Your task to perform on an android device: Empty the shopping cart on newegg.com. Search for "razer blade" on newegg.com, select the first entry, and add it to the cart. Image 0: 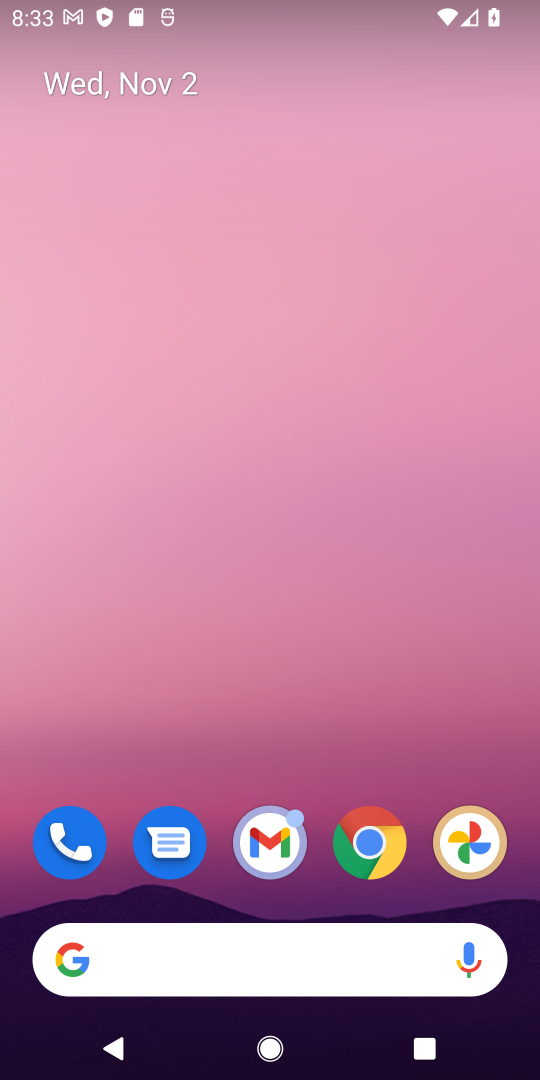
Step 0: drag from (267, 502) to (282, 131)
Your task to perform on an android device: Empty the shopping cart on newegg.com. Search for "razer blade" on newegg.com, select the first entry, and add it to the cart. Image 1: 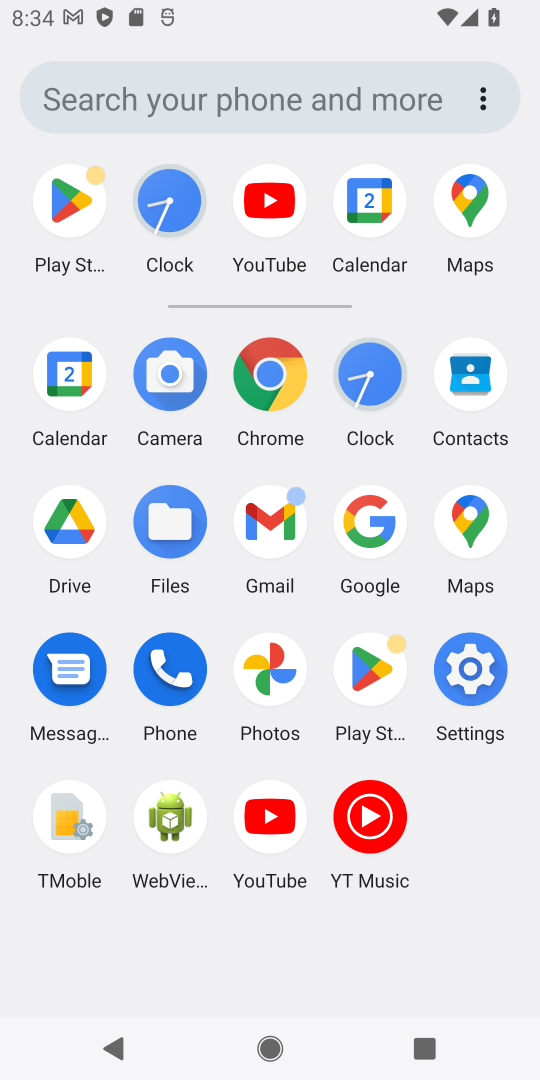
Step 1: click (364, 516)
Your task to perform on an android device: Empty the shopping cart on newegg.com. Search for "razer blade" on newegg.com, select the first entry, and add it to the cart. Image 2: 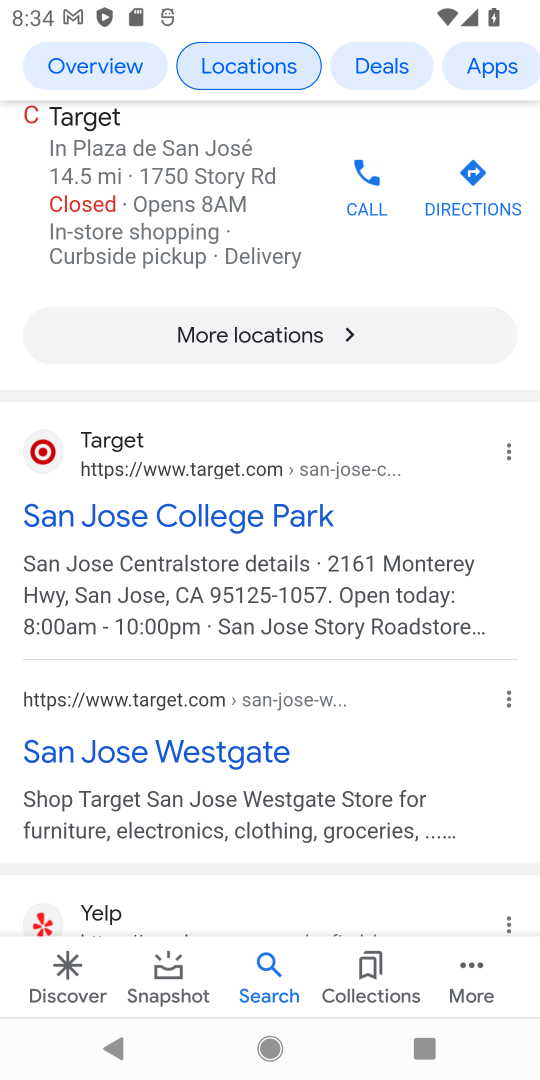
Step 2: drag from (317, 172) to (247, 832)
Your task to perform on an android device: Empty the shopping cart on newegg.com. Search for "razer blade" on newegg.com, select the first entry, and add it to the cart. Image 3: 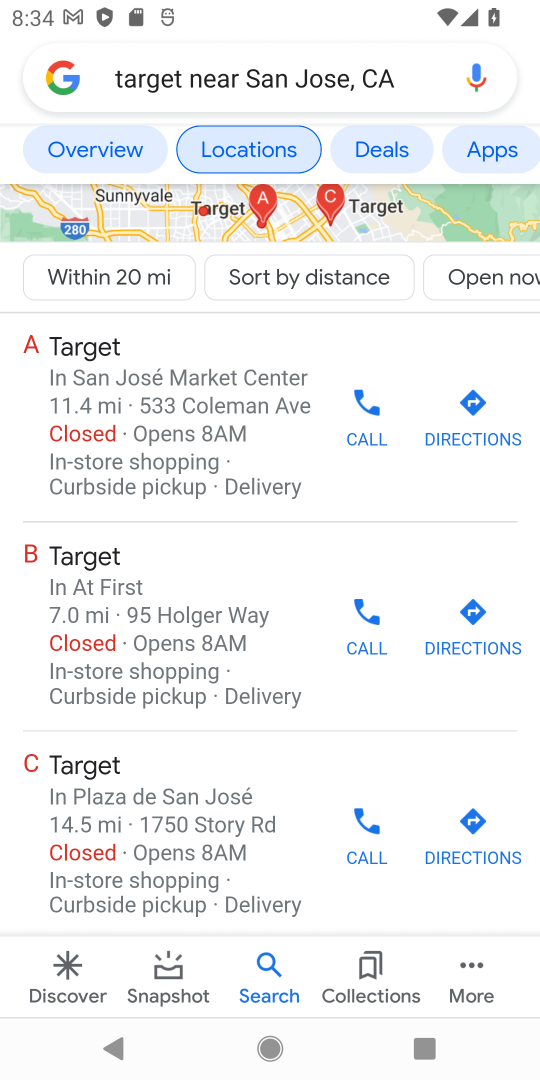
Step 3: click (227, 74)
Your task to perform on an android device: Empty the shopping cart on newegg.com. Search for "razer blade" on newegg.com, select the first entry, and add it to the cart. Image 4: 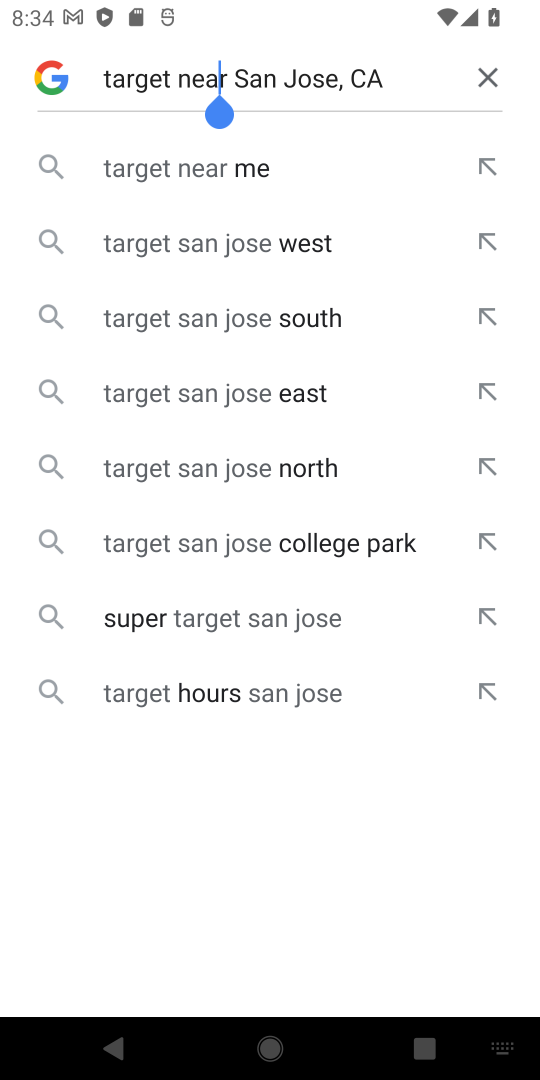
Step 4: click (479, 82)
Your task to perform on an android device: Empty the shopping cart on newegg.com. Search for "razer blade" on newegg.com, select the first entry, and add it to the cart. Image 5: 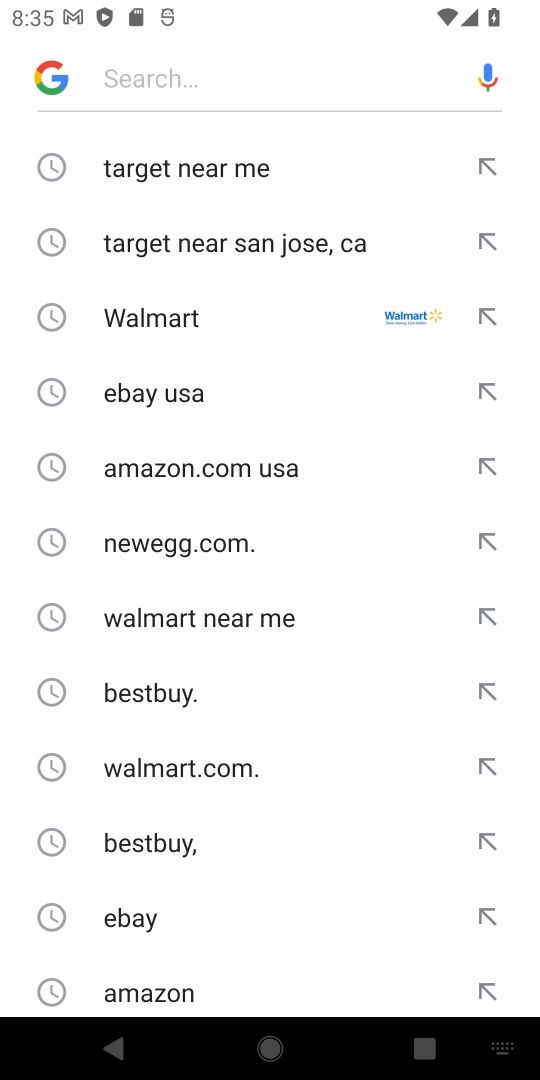
Step 5: click (147, 67)
Your task to perform on an android device: Empty the shopping cart on newegg.com. Search for "razer blade" on newegg.com, select the first entry, and add it to the cart. Image 6: 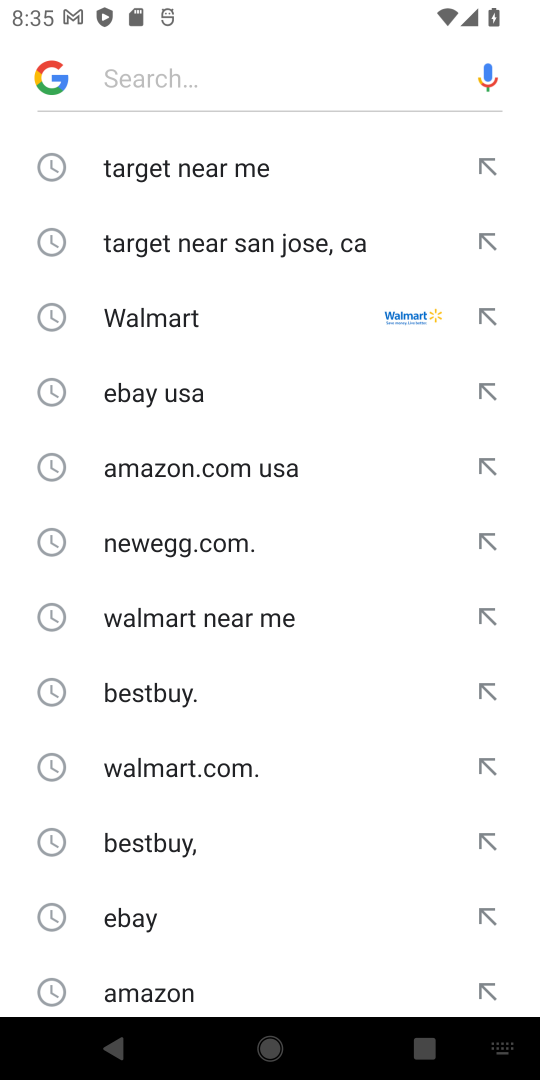
Step 6: type "newegg "
Your task to perform on an android device: Empty the shopping cart on newegg.com. Search for "razer blade" on newegg.com, select the first entry, and add it to the cart. Image 7: 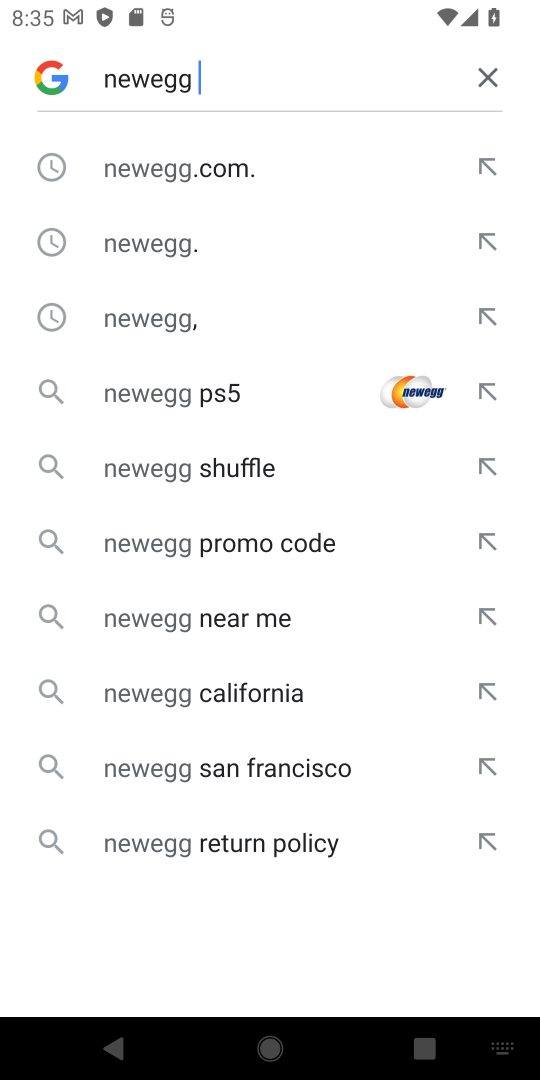
Step 7: click (137, 192)
Your task to perform on an android device: Empty the shopping cart on newegg.com. Search for "razer blade" on newegg.com, select the first entry, and add it to the cart. Image 8: 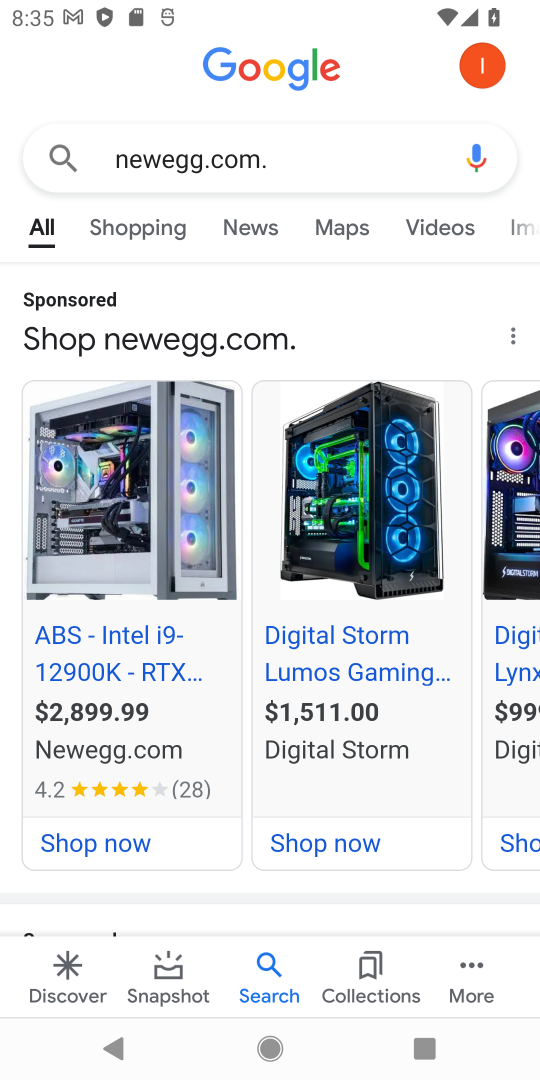
Step 8: drag from (235, 926) to (299, 368)
Your task to perform on an android device: Empty the shopping cart on newegg.com. Search for "razer blade" on newegg.com, select the first entry, and add it to the cart. Image 9: 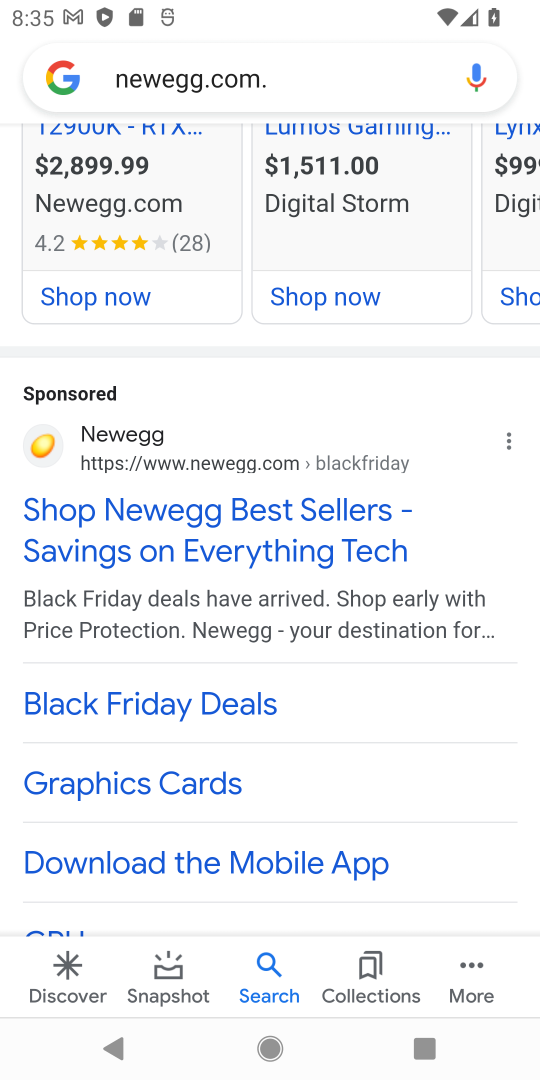
Step 9: click (31, 431)
Your task to perform on an android device: Empty the shopping cart on newegg.com. Search for "razer blade" on newegg.com, select the first entry, and add it to the cart. Image 10: 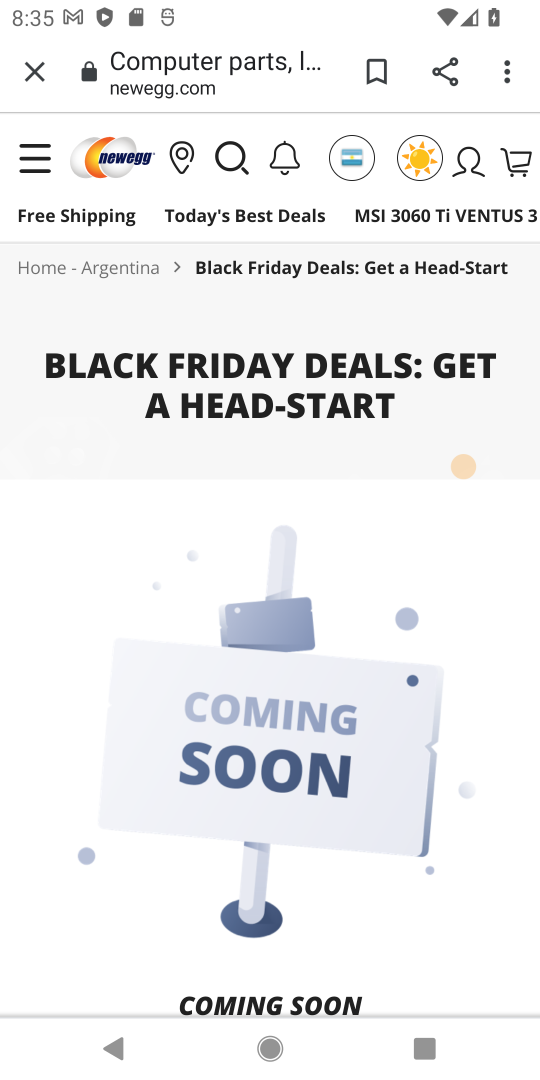
Step 10: click (241, 152)
Your task to perform on an android device: Empty the shopping cart on newegg.com. Search for "razer blade" on newegg.com, select the first entry, and add it to the cart. Image 11: 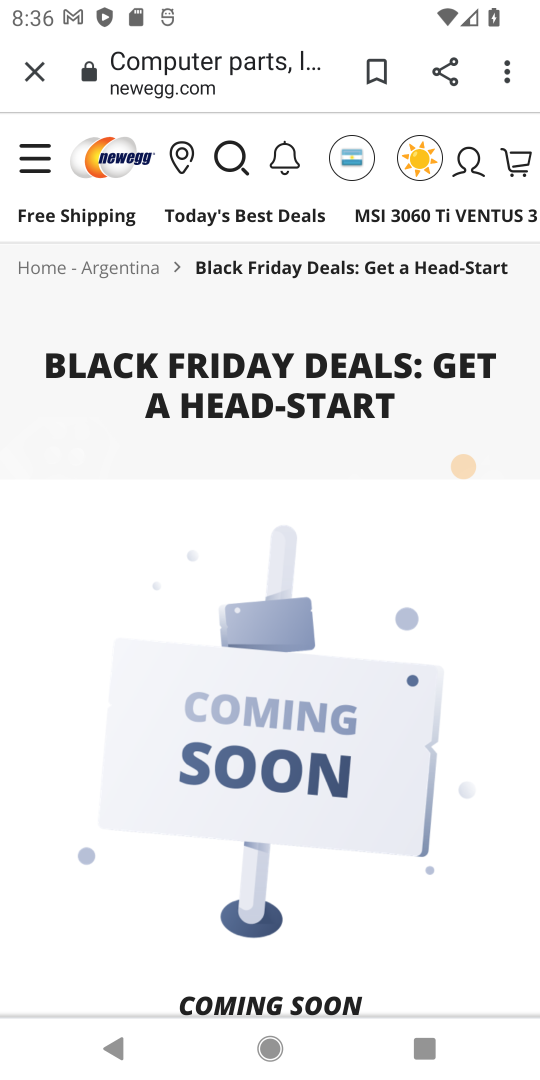
Step 11: click (228, 140)
Your task to perform on an android device: Empty the shopping cart on newegg.com. Search for "razer blade" on newegg.com, select the first entry, and add it to the cart. Image 12: 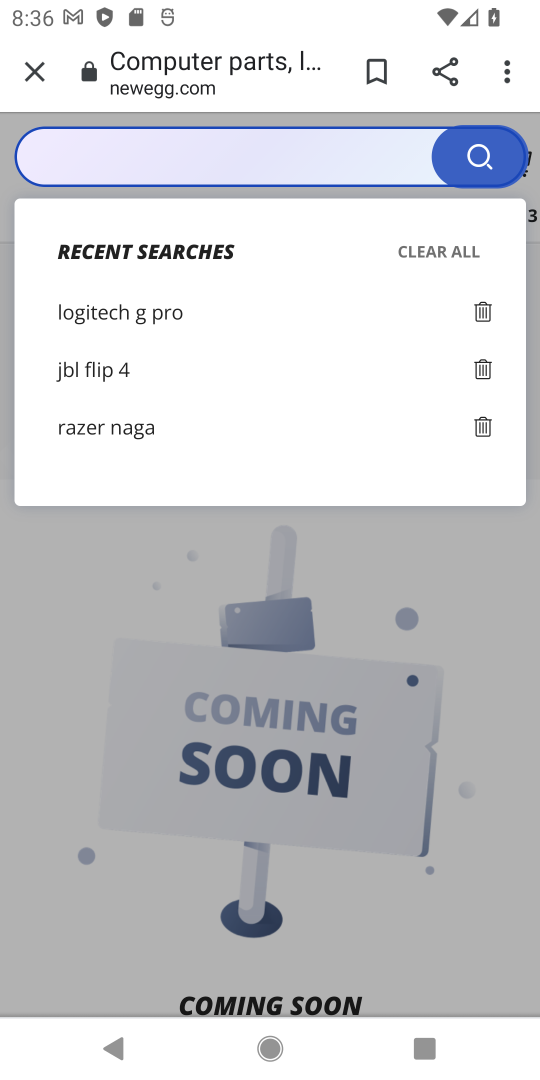
Step 12: click (342, 157)
Your task to perform on an android device: Empty the shopping cart on newegg.com. Search for "razer blade" on newegg.com, select the first entry, and add it to the cart. Image 13: 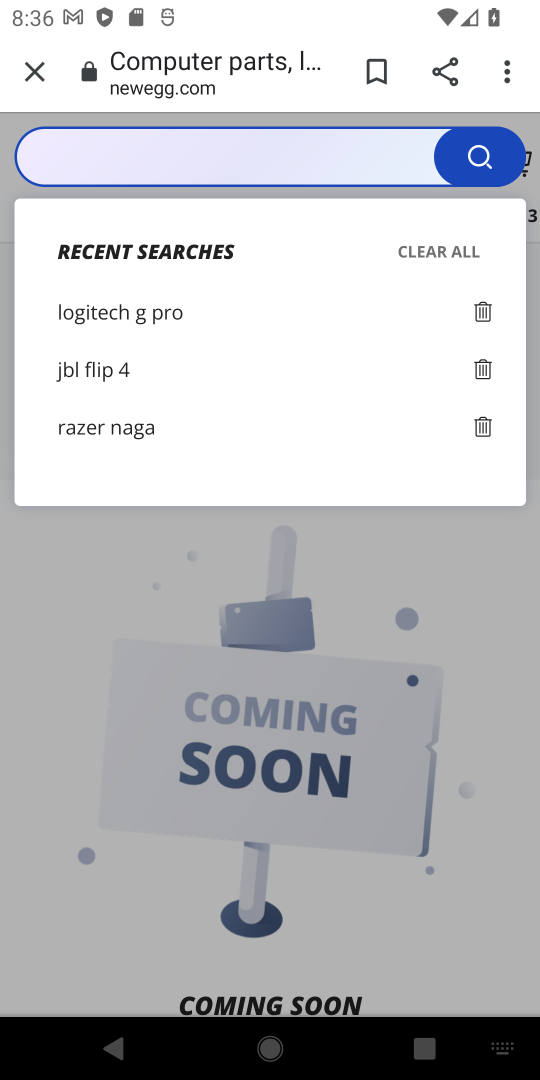
Step 13: type "razer blade "
Your task to perform on an android device: Empty the shopping cart on newegg.com. Search for "razer blade" on newegg.com, select the first entry, and add it to the cart. Image 14: 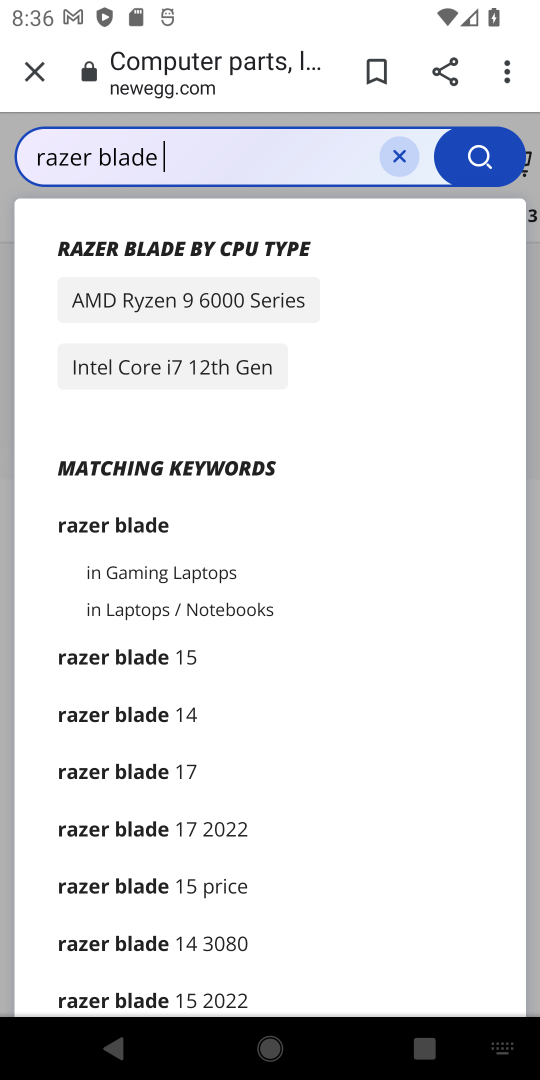
Step 14: click (77, 649)
Your task to perform on an android device: Empty the shopping cart on newegg.com. Search for "razer blade" on newegg.com, select the first entry, and add it to the cart. Image 15: 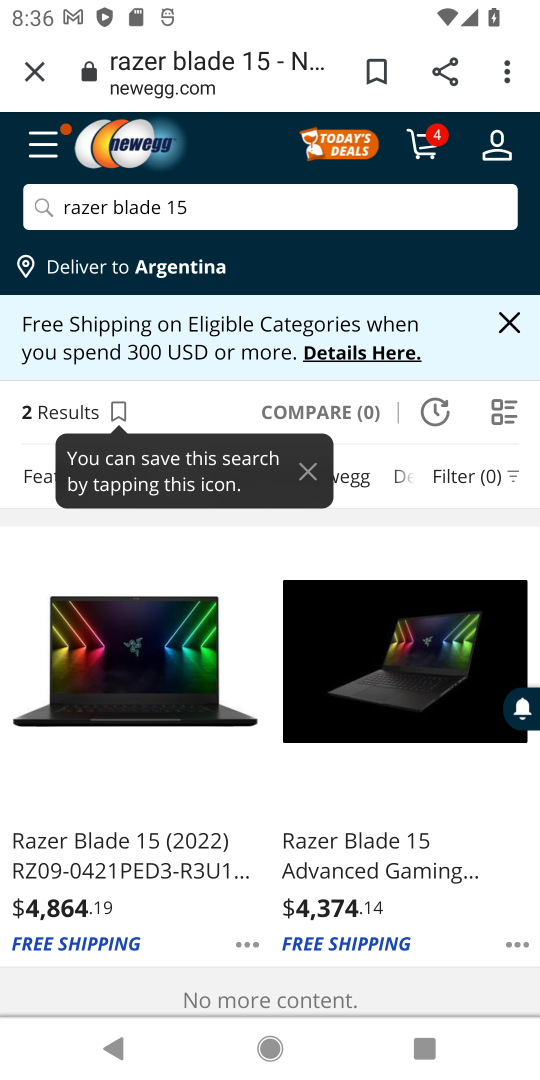
Step 15: click (94, 688)
Your task to perform on an android device: Empty the shopping cart on newegg.com. Search for "razer blade" on newegg.com, select the first entry, and add it to the cart. Image 16: 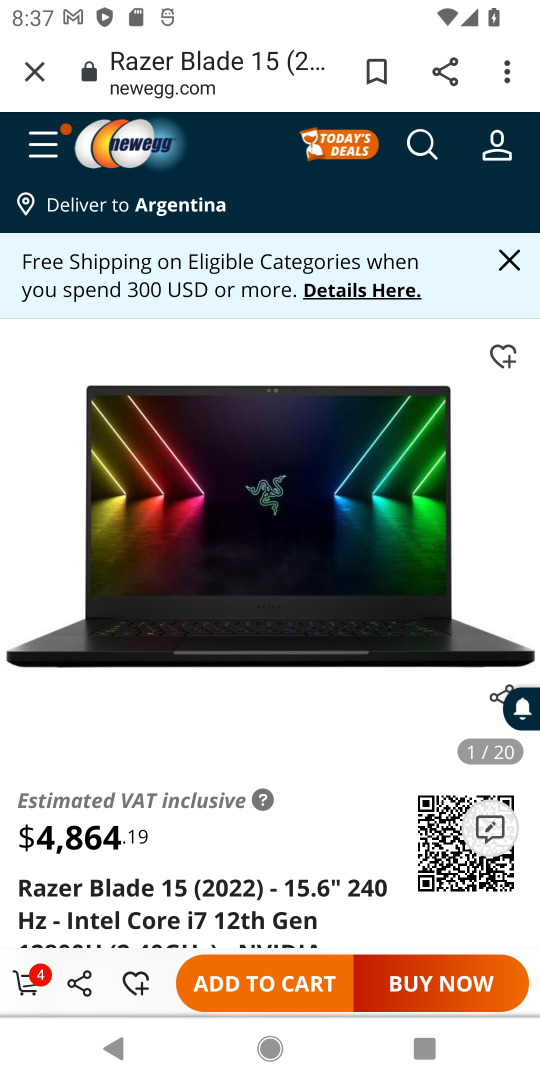
Step 16: click (222, 974)
Your task to perform on an android device: Empty the shopping cart on newegg.com. Search for "razer blade" on newegg.com, select the first entry, and add it to the cart. Image 17: 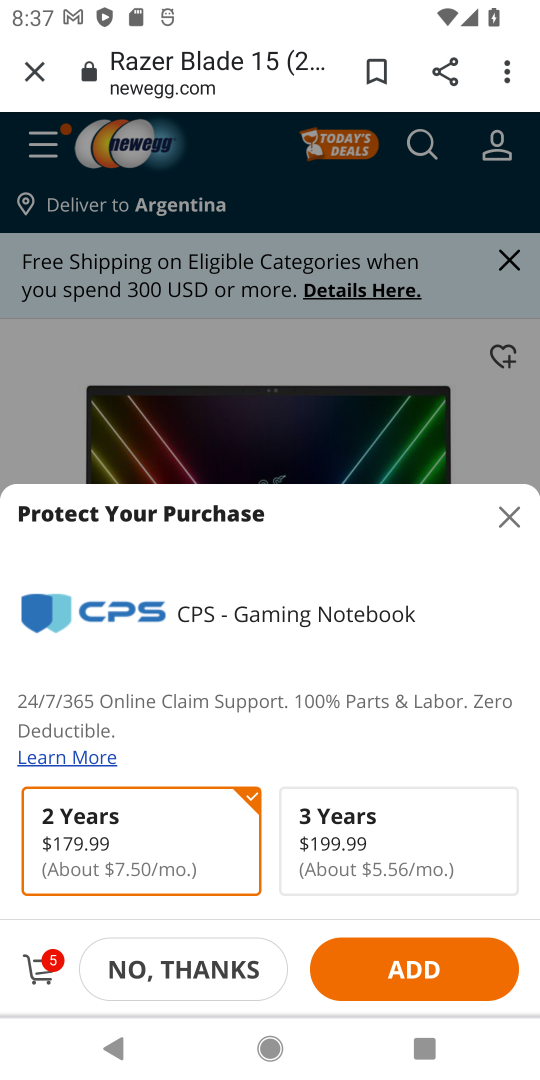
Step 17: click (418, 962)
Your task to perform on an android device: Empty the shopping cart on newegg.com. Search for "razer blade" on newegg.com, select the first entry, and add it to the cart. Image 18: 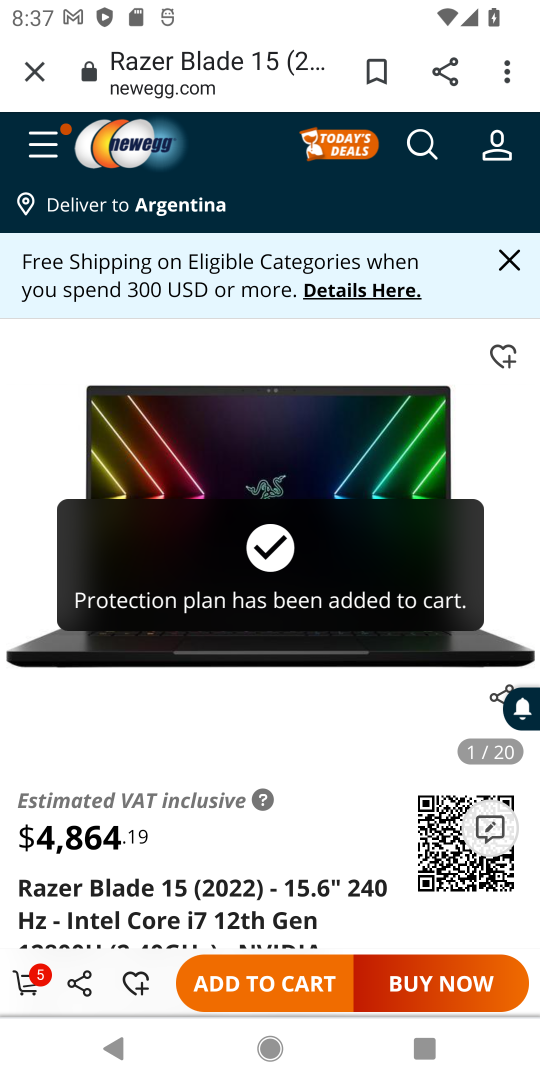
Step 18: task complete